Your task to perform on an android device: find photos in the google photos app Image 0: 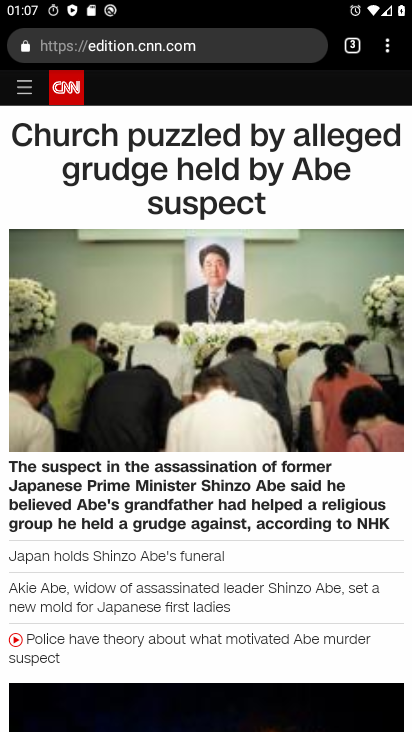
Step 0: press home button
Your task to perform on an android device: find photos in the google photos app Image 1: 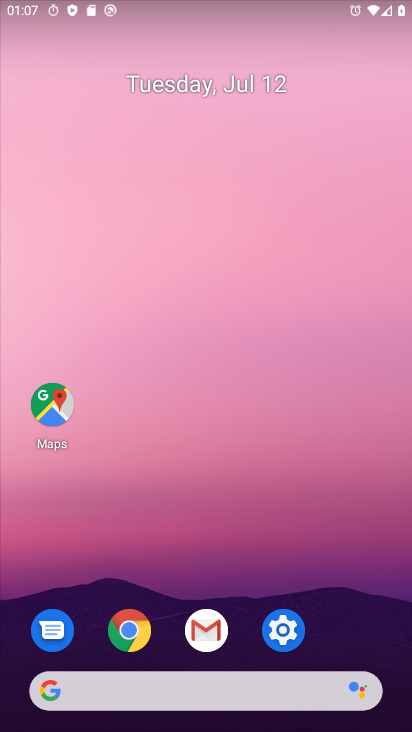
Step 1: drag from (270, 700) to (183, 196)
Your task to perform on an android device: find photos in the google photos app Image 2: 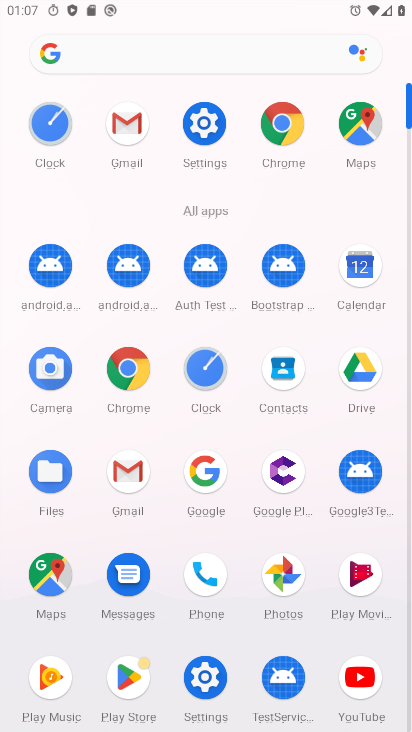
Step 2: click (280, 580)
Your task to perform on an android device: find photos in the google photos app Image 3: 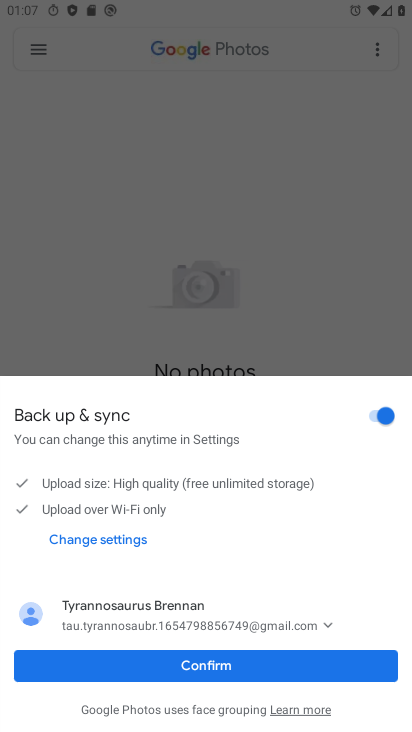
Step 3: click (173, 666)
Your task to perform on an android device: find photos in the google photos app Image 4: 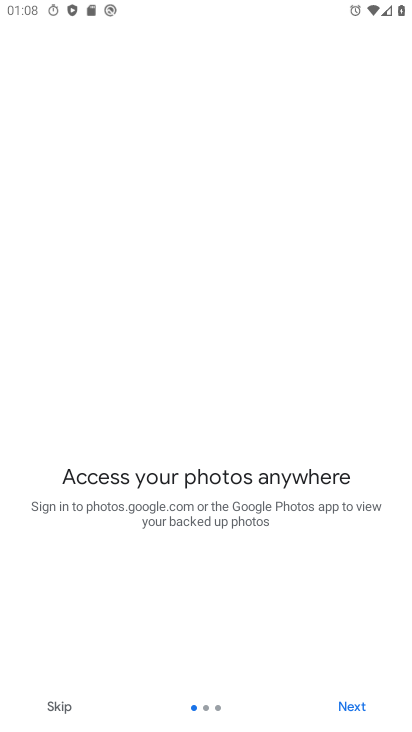
Step 4: click (347, 706)
Your task to perform on an android device: find photos in the google photos app Image 5: 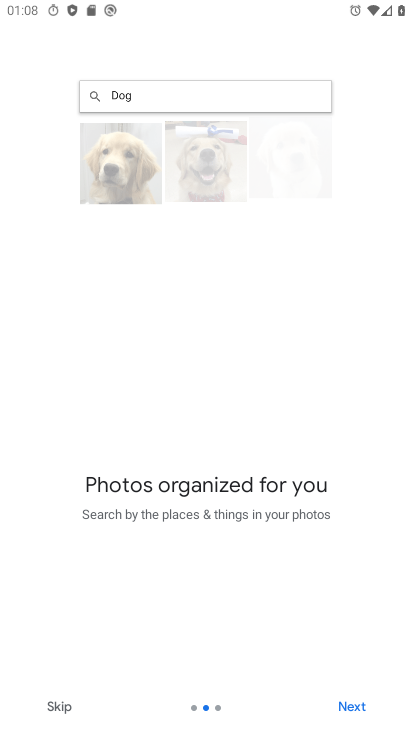
Step 5: click (357, 709)
Your task to perform on an android device: find photos in the google photos app Image 6: 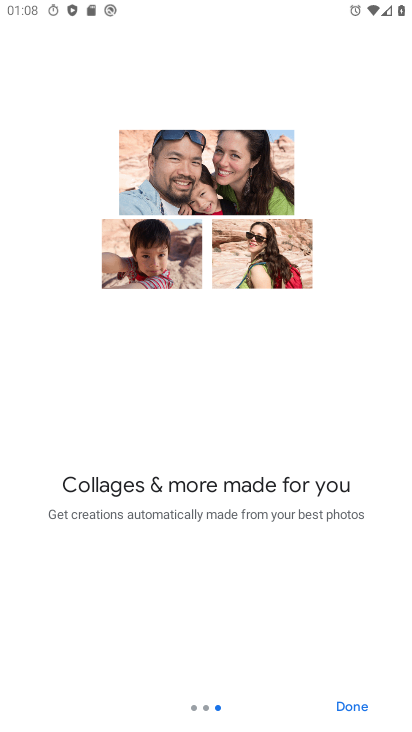
Step 6: click (352, 710)
Your task to perform on an android device: find photos in the google photos app Image 7: 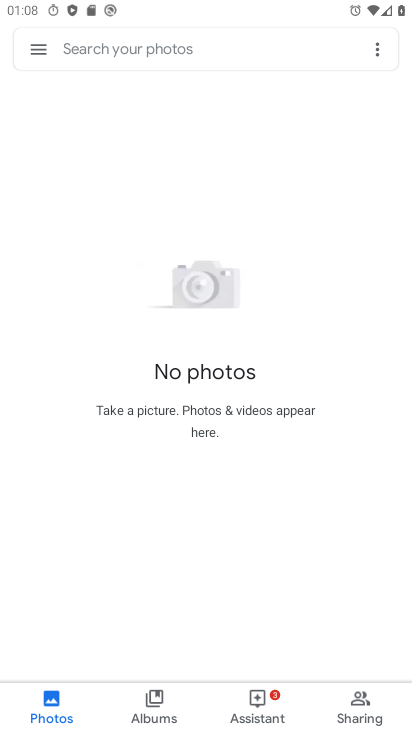
Step 7: click (44, 55)
Your task to perform on an android device: find photos in the google photos app Image 8: 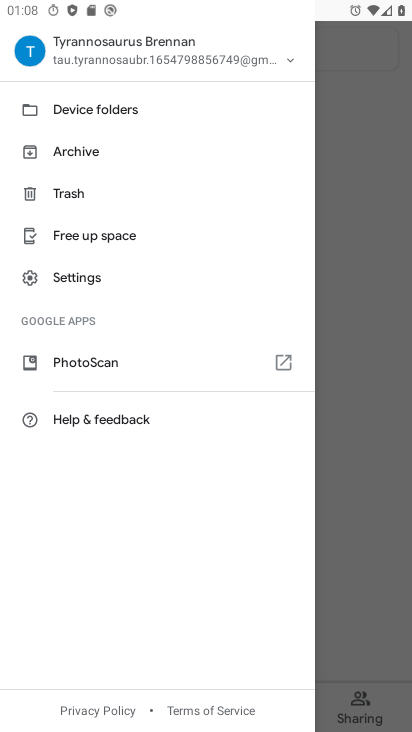
Step 8: click (66, 273)
Your task to perform on an android device: find photos in the google photos app Image 9: 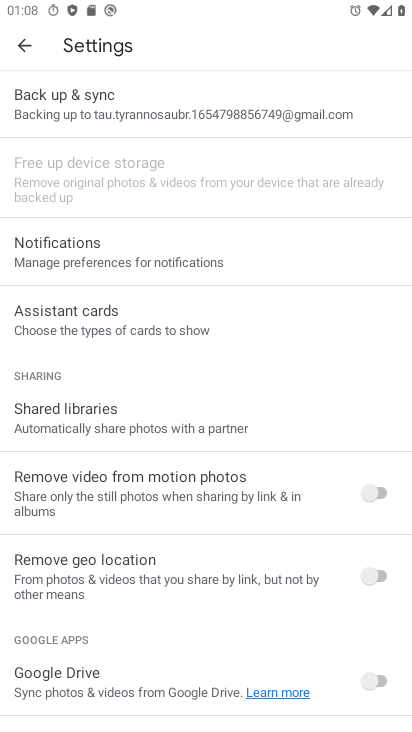
Step 9: click (24, 46)
Your task to perform on an android device: find photos in the google photos app Image 10: 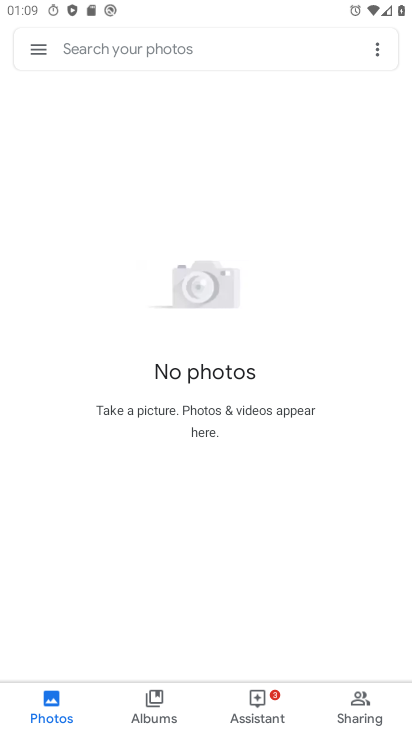
Step 10: task complete